Your task to perform on an android device: turn off airplane mode Image 0: 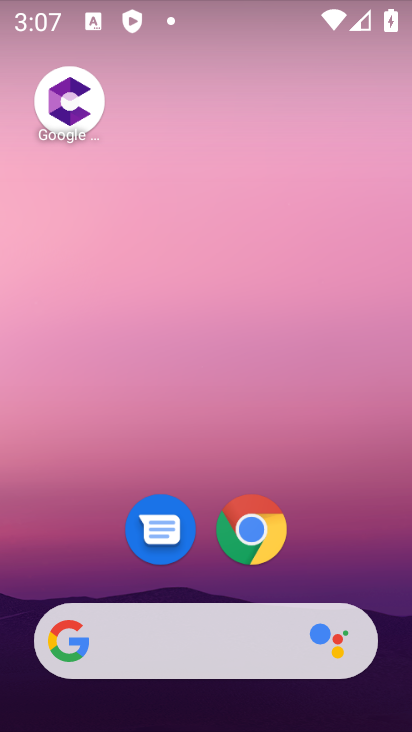
Step 0: drag from (243, 659) to (284, 213)
Your task to perform on an android device: turn off airplane mode Image 1: 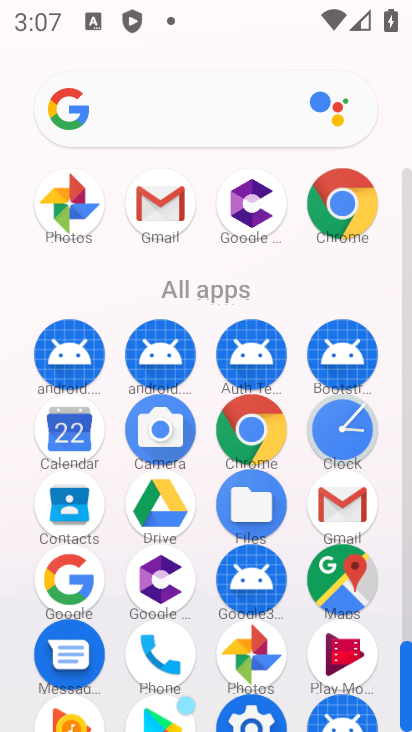
Step 1: drag from (316, 475) to (336, 324)
Your task to perform on an android device: turn off airplane mode Image 2: 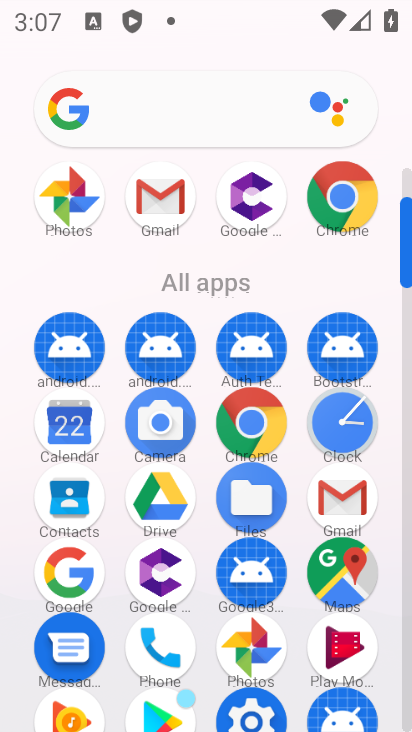
Step 2: click (404, 486)
Your task to perform on an android device: turn off airplane mode Image 3: 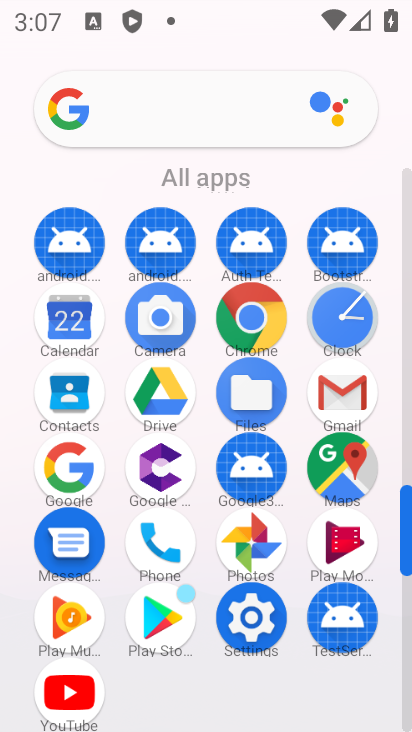
Step 3: click (260, 599)
Your task to perform on an android device: turn off airplane mode Image 4: 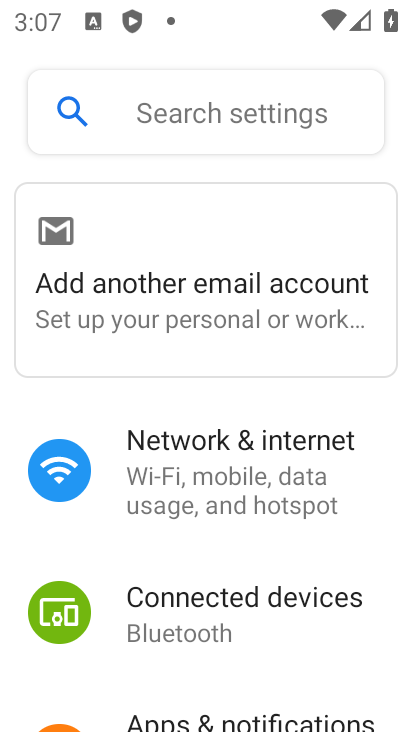
Step 4: click (234, 486)
Your task to perform on an android device: turn off airplane mode Image 5: 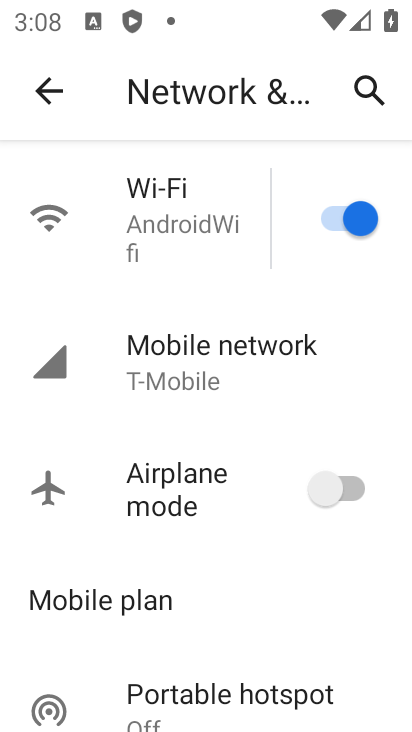
Step 5: task complete